Your task to perform on an android device: What's on my calendar tomorrow? Image 0: 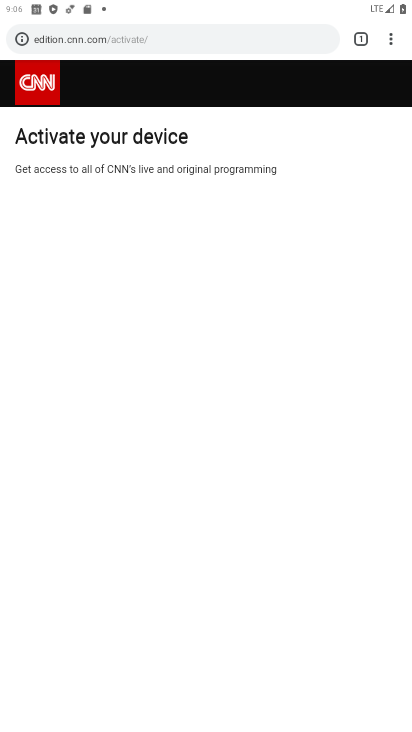
Step 0: press home button
Your task to perform on an android device: What's on my calendar tomorrow? Image 1: 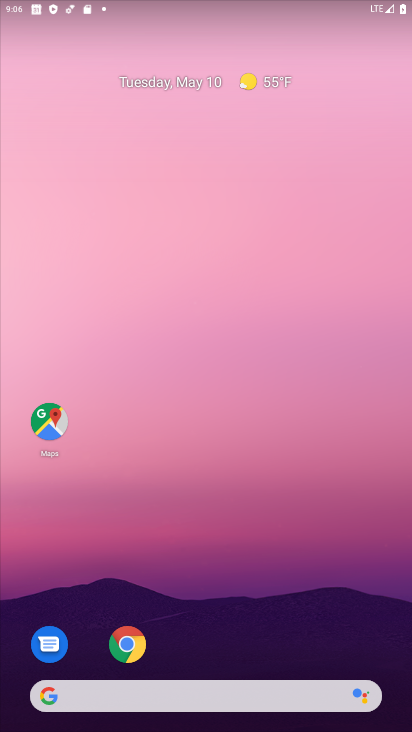
Step 1: drag from (234, 666) to (234, 131)
Your task to perform on an android device: What's on my calendar tomorrow? Image 2: 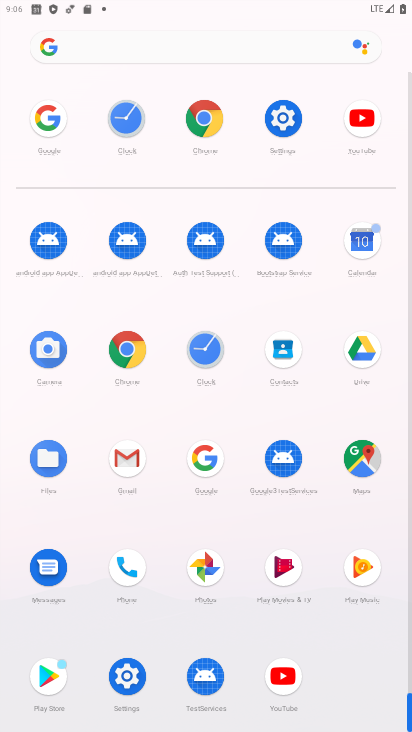
Step 2: click (370, 240)
Your task to perform on an android device: What's on my calendar tomorrow? Image 3: 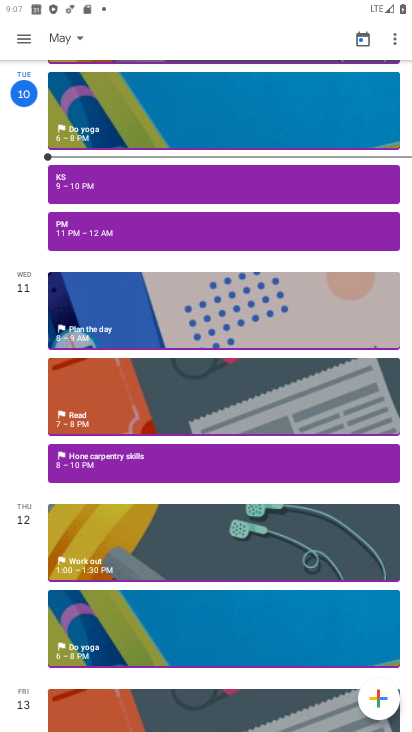
Step 3: task complete